Your task to perform on an android device: turn on javascript in the chrome app Image 0: 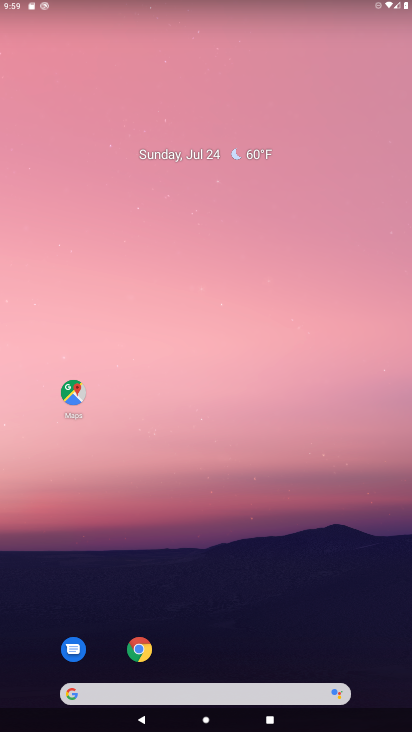
Step 0: drag from (268, 625) to (222, 120)
Your task to perform on an android device: turn on javascript in the chrome app Image 1: 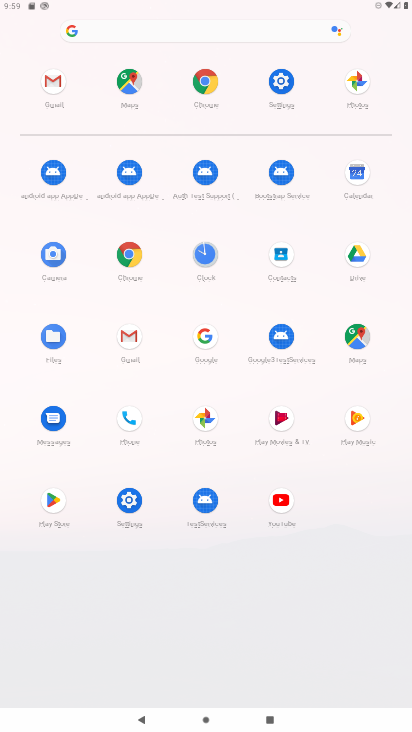
Step 1: click (126, 252)
Your task to perform on an android device: turn on javascript in the chrome app Image 2: 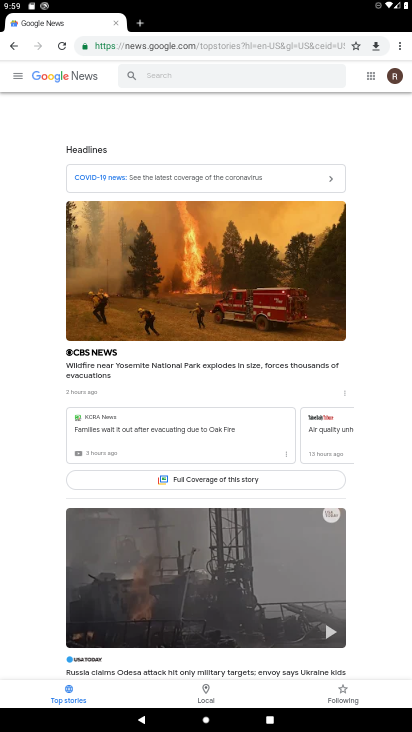
Step 2: drag from (404, 45) to (325, 339)
Your task to perform on an android device: turn on javascript in the chrome app Image 3: 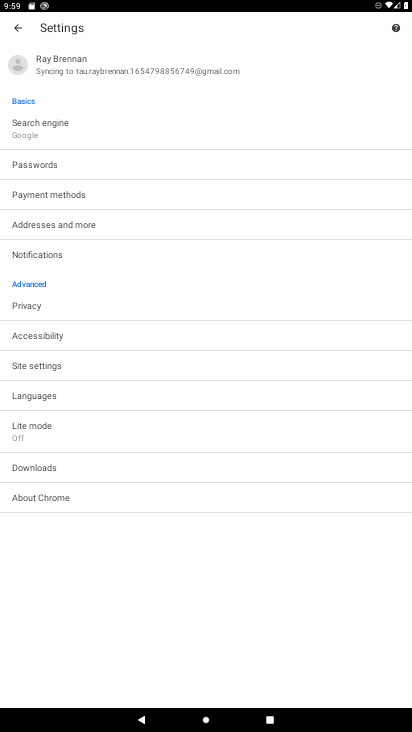
Step 3: click (112, 367)
Your task to perform on an android device: turn on javascript in the chrome app Image 4: 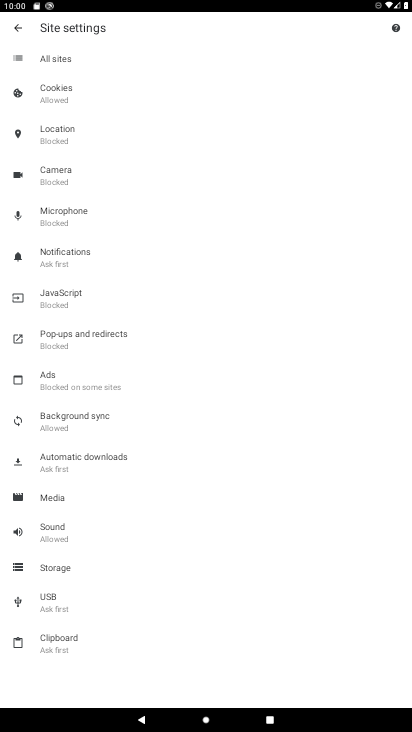
Step 4: click (55, 301)
Your task to perform on an android device: turn on javascript in the chrome app Image 5: 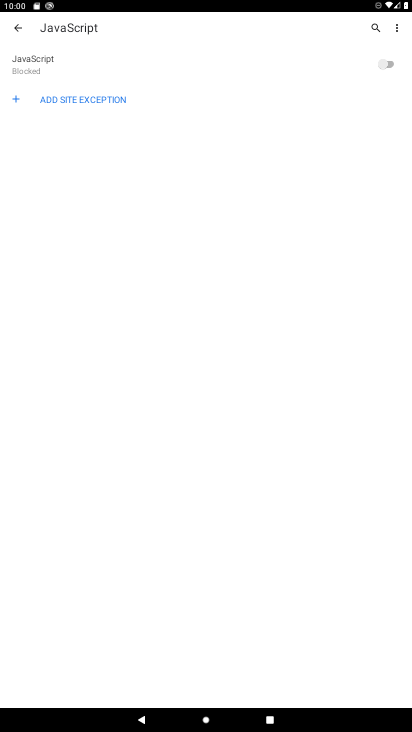
Step 5: click (392, 68)
Your task to perform on an android device: turn on javascript in the chrome app Image 6: 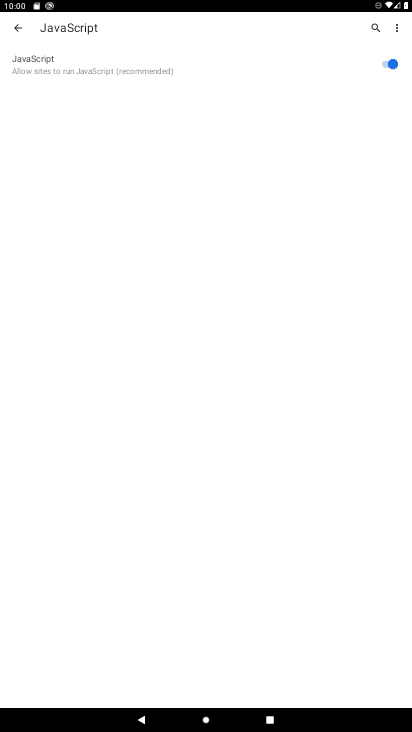
Step 6: task complete